Your task to perform on an android device: find photos in the google photos app Image 0: 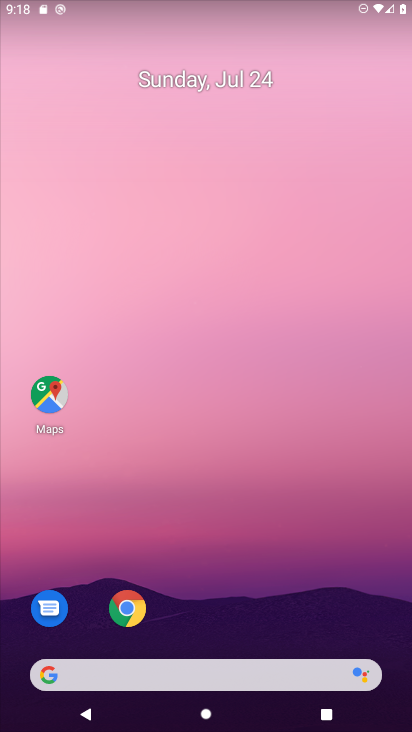
Step 0: drag from (191, 628) to (198, 110)
Your task to perform on an android device: find photos in the google photos app Image 1: 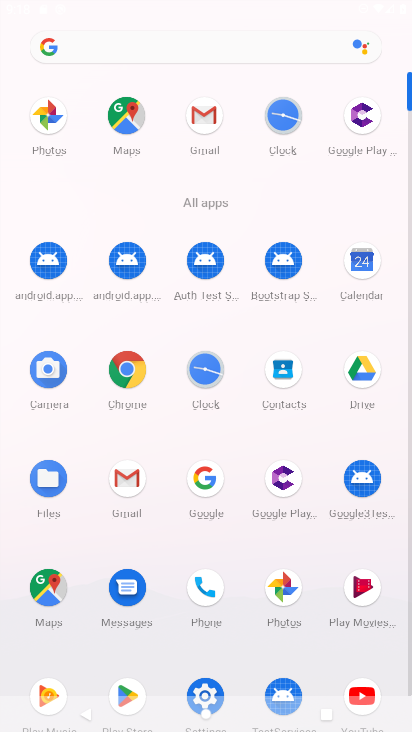
Step 1: click (282, 581)
Your task to perform on an android device: find photos in the google photos app Image 2: 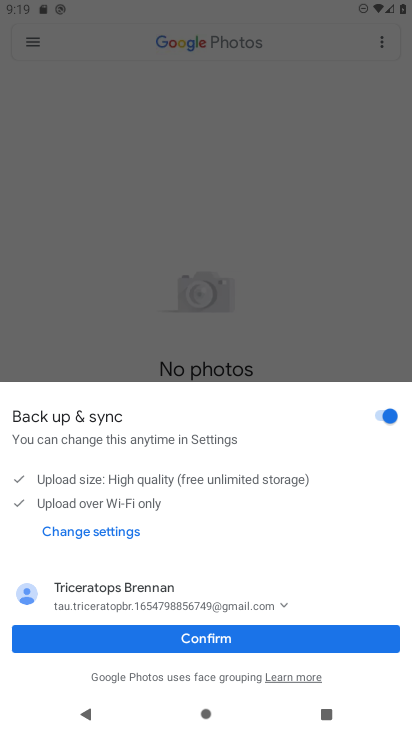
Step 2: click (157, 638)
Your task to perform on an android device: find photos in the google photos app Image 3: 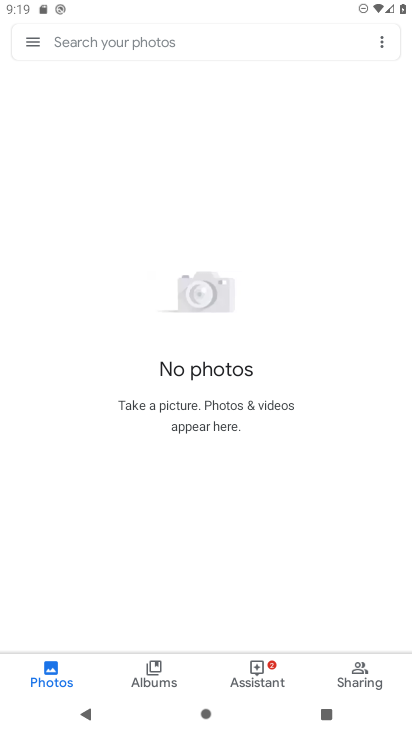
Step 3: drag from (251, 604) to (327, 287)
Your task to perform on an android device: find photos in the google photos app Image 4: 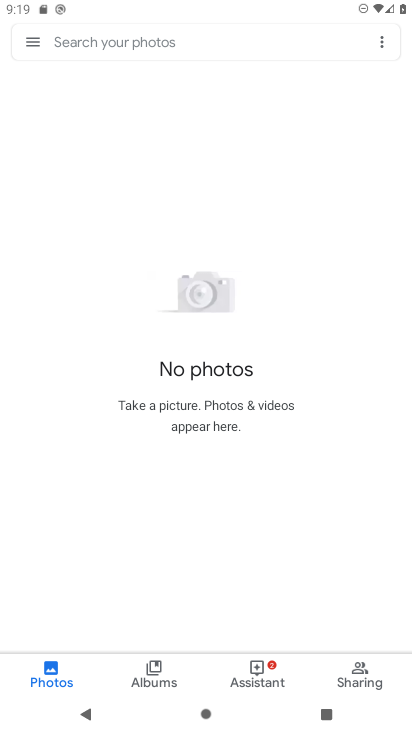
Step 4: drag from (227, 503) to (227, 317)
Your task to perform on an android device: find photos in the google photos app Image 5: 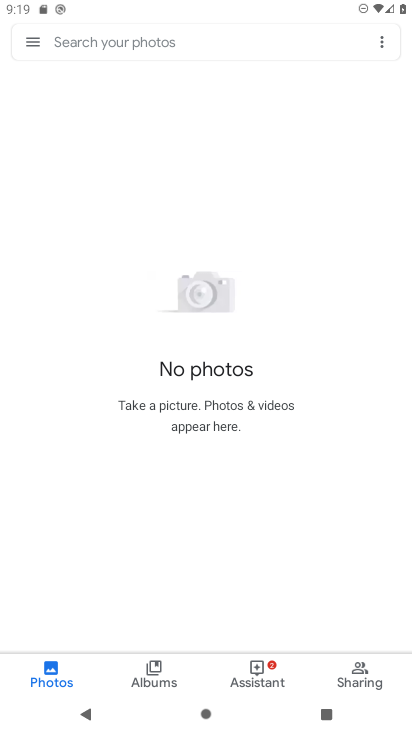
Step 5: drag from (143, 554) to (131, 332)
Your task to perform on an android device: find photos in the google photos app Image 6: 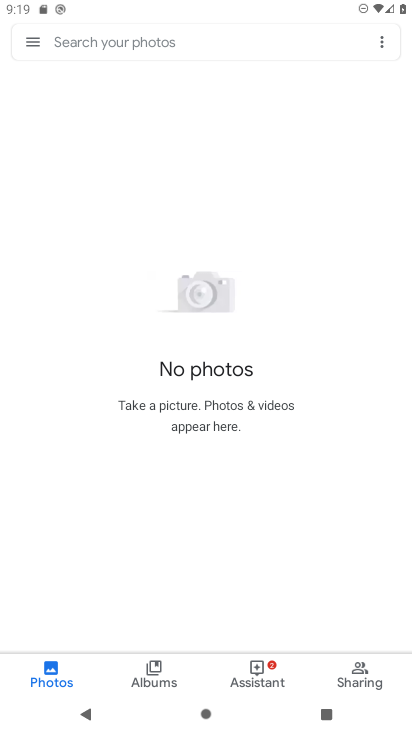
Step 6: drag from (143, 613) to (187, 279)
Your task to perform on an android device: find photos in the google photos app Image 7: 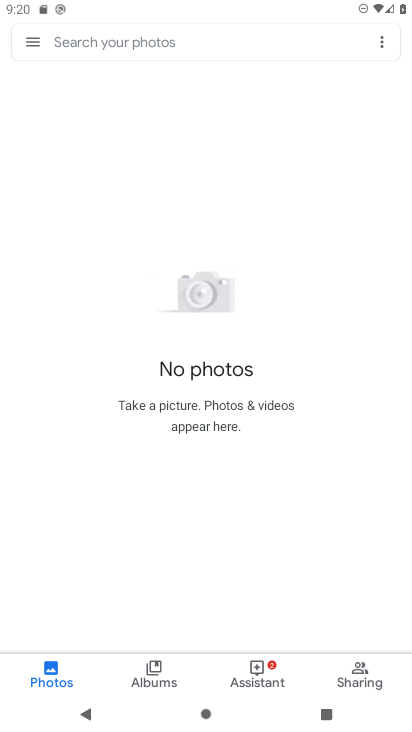
Step 7: click (309, 305)
Your task to perform on an android device: find photos in the google photos app Image 8: 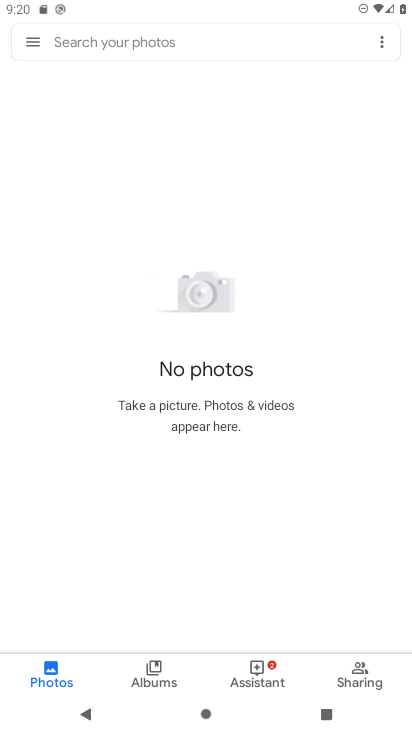
Step 8: task complete